Your task to perform on an android device: Open Maps and search for coffee Image 0: 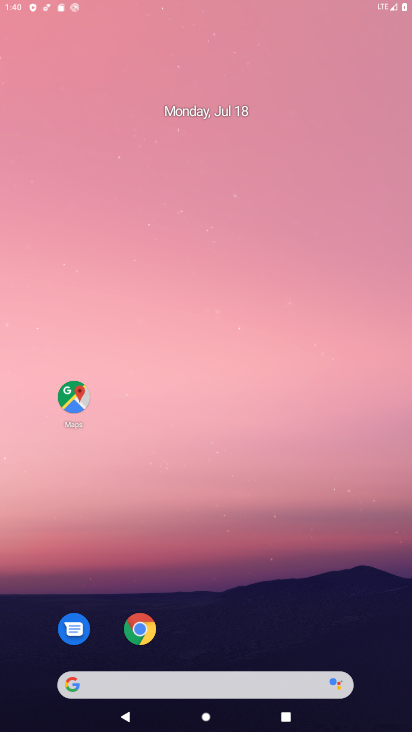
Step 0: press home button
Your task to perform on an android device: Open Maps and search for coffee Image 1: 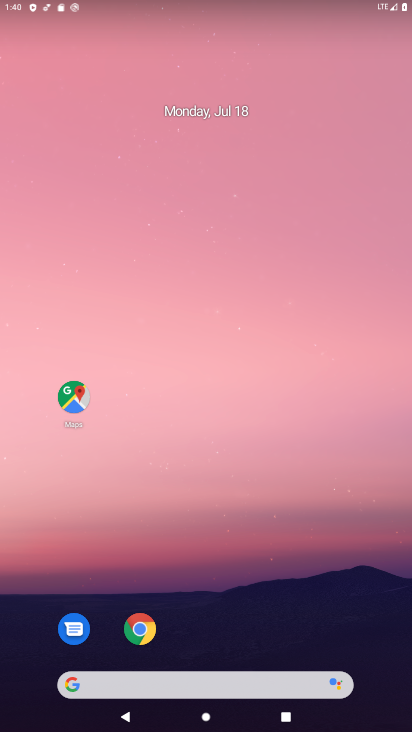
Step 1: click (71, 394)
Your task to perform on an android device: Open Maps and search for coffee Image 2: 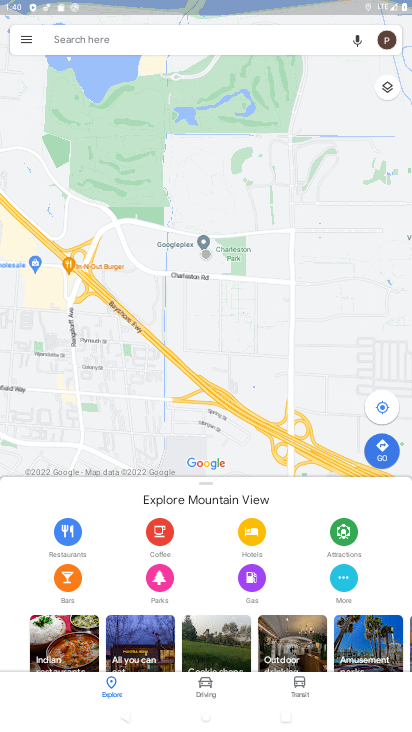
Step 2: click (98, 36)
Your task to perform on an android device: Open Maps and search for coffee Image 3: 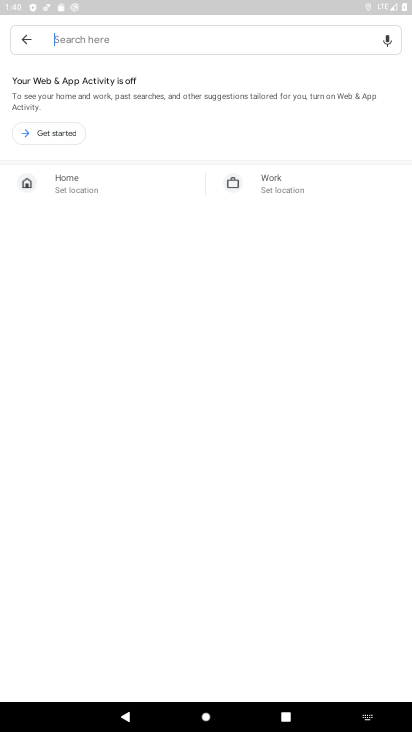
Step 3: type "coffee"
Your task to perform on an android device: Open Maps and search for coffee Image 4: 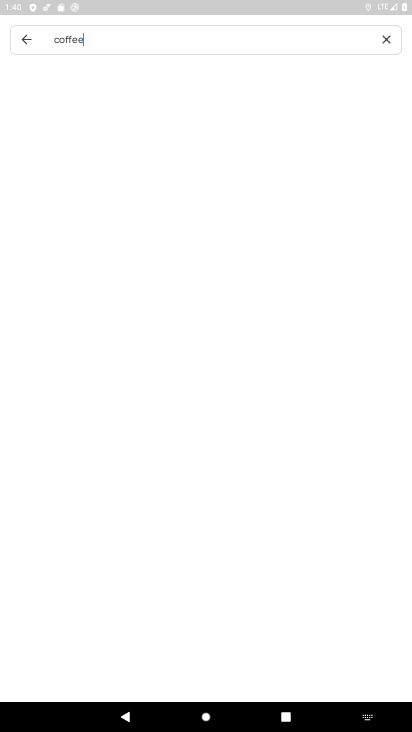
Step 4: type ""
Your task to perform on an android device: Open Maps and search for coffee Image 5: 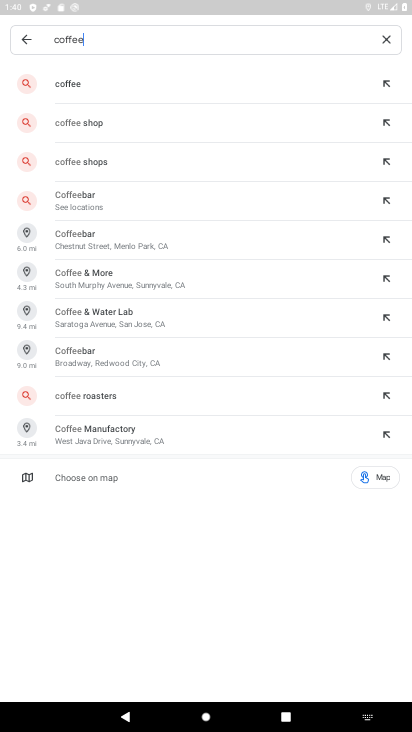
Step 5: click (114, 122)
Your task to perform on an android device: Open Maps and search for coffee Image 6: 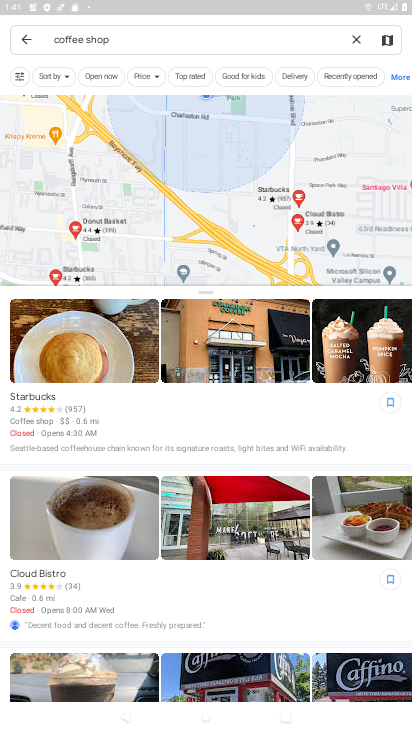
Step 6: task complete